Your task to perform on an android device: turn on the 24-hour format for clock Image 0: 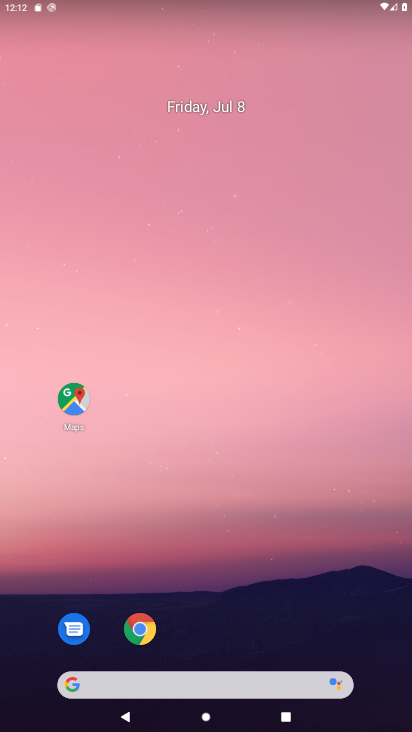
Step 0: drag from (275, 558) to (279, 203)
Your task to perform on an android device: turn on the 24-hour format for clock Image 1: 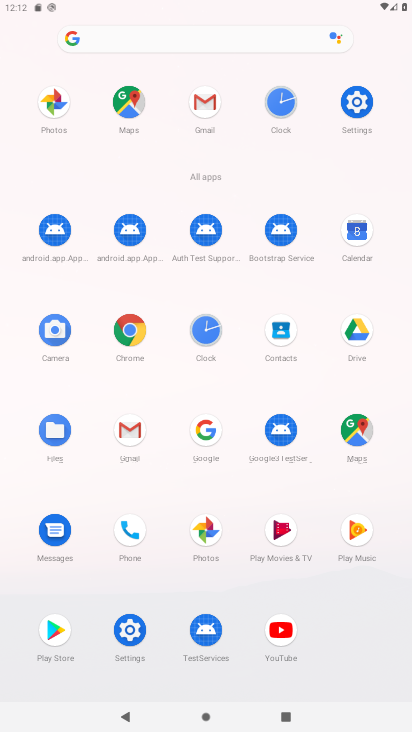
Step 1: click (210, 335)
Your task to perform on an android device: turn on the 24-hour format for clock Image 2: 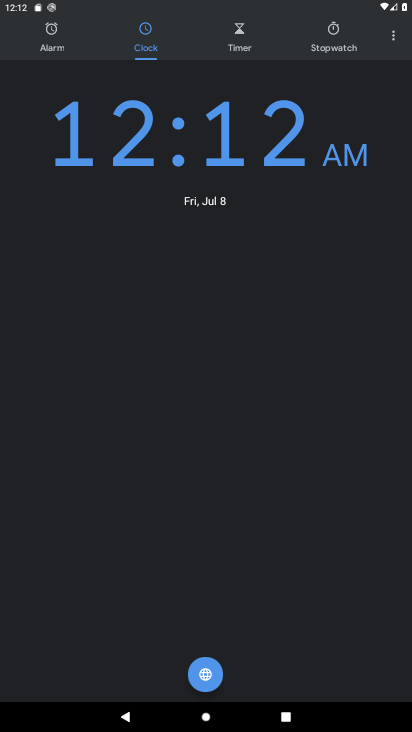
Step 2: click (392, 30)
Your task to perform on an android device: turn on the 24-hour format for clock Image 3: 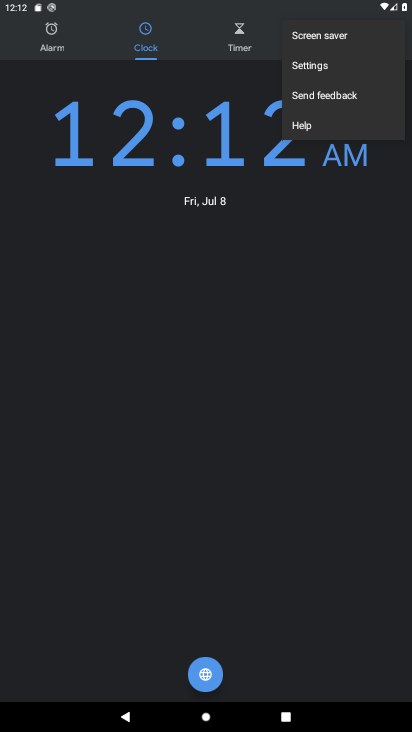
Step 3: click (330, 60)
Your task to perform on an android device: turn on the 24-hour format for clock Image 4: 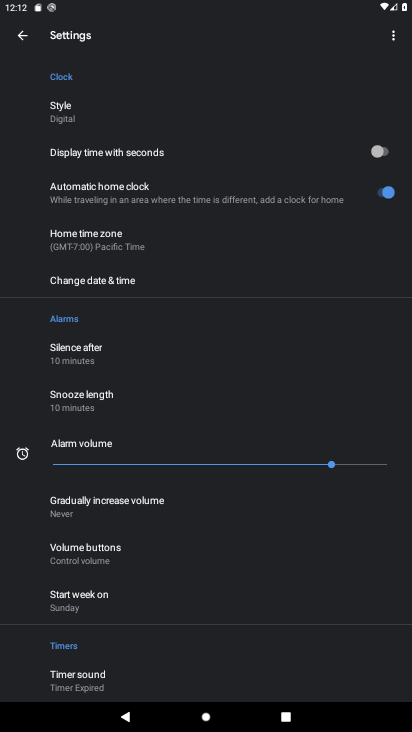
Step 4: click (153, 271)
Your task to perform on an android device: turn on the 24-hour format for clock Image 5: 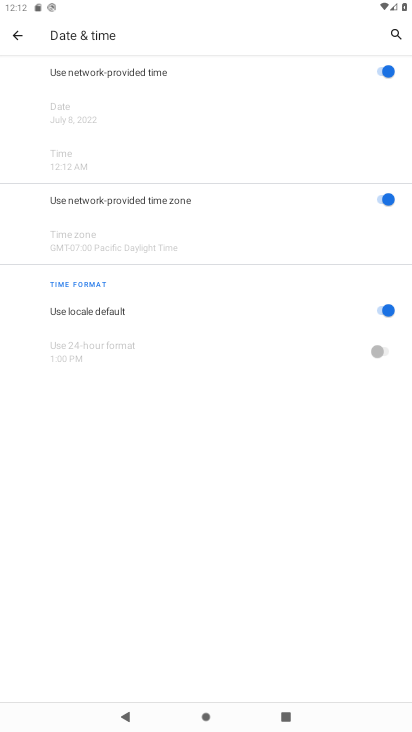
Step 5: click (377, 307)
Your task to perform on an android device: turn on the 24-hour format for clock Image 6: 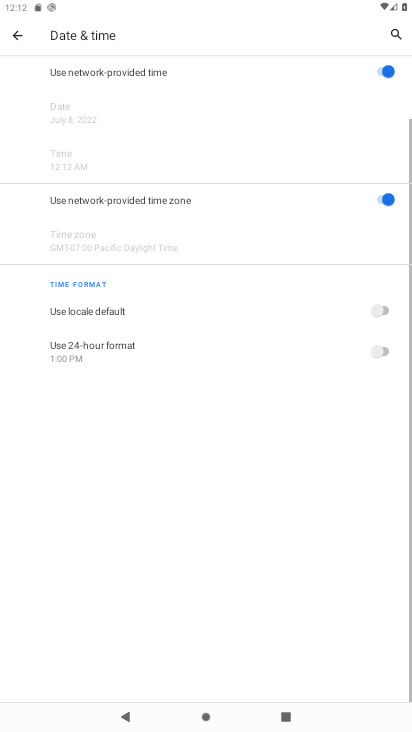
Step 6: click (383, 355)
Your task to perform on an android device: turn on the 24-hour format for clock Image 7: 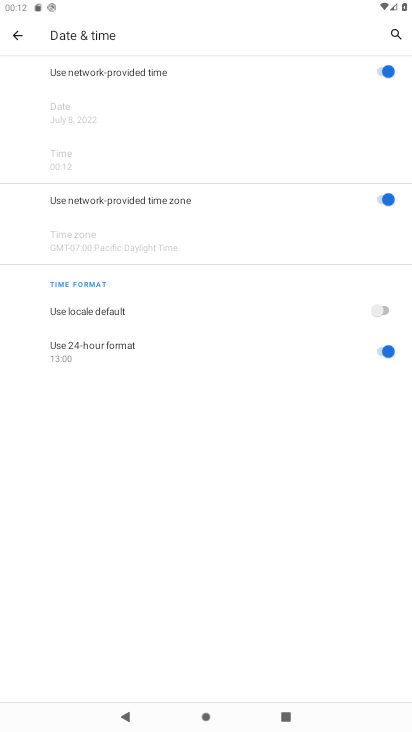
Step 7: task complete